Your task to perform on an android device: turn off wifi Image 0: 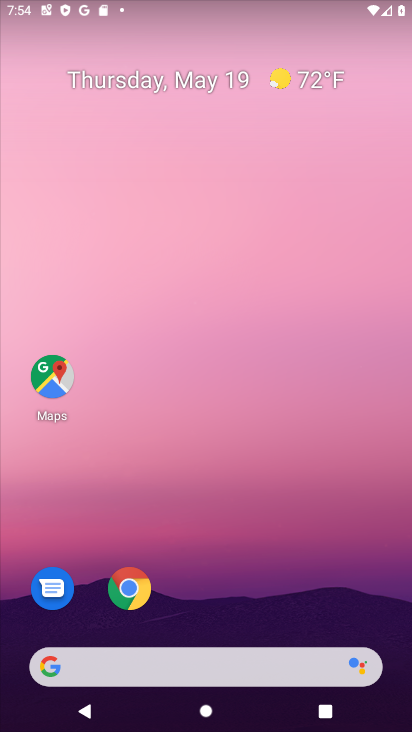
Step 0: drag from (383, 23) to (385, 223)
Your task to perform on an android device: turn off wifi Image 1: 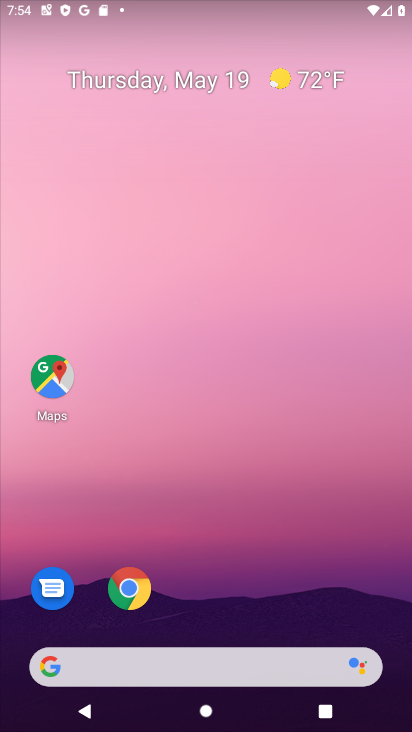
Step 1: drag from (375, 5) to (318, 422)
Your task to perform on an android device: turn off wifi Image 2: 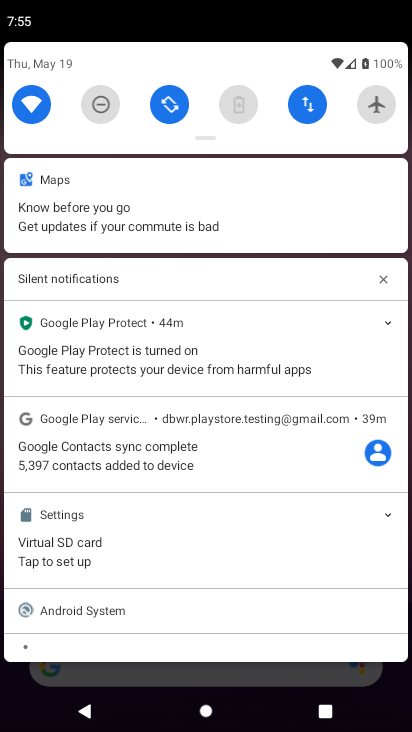
Step 2: click (29, 116)
Your task to perform on an android device: turn off wifi Image 3: 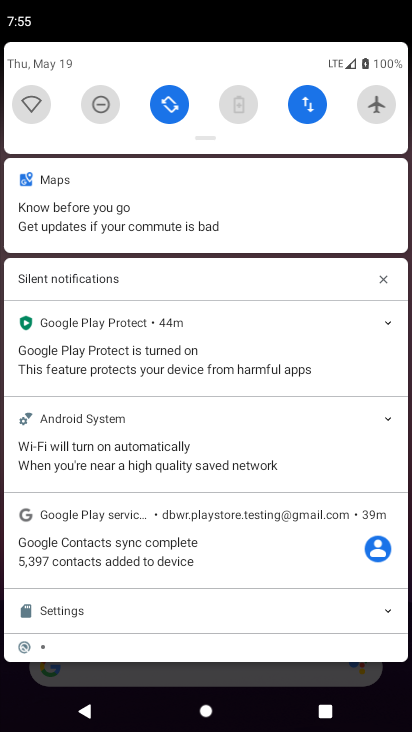
Step 3: task complete